Your task to perform on an android device: Open Yahoo.com Image 0: 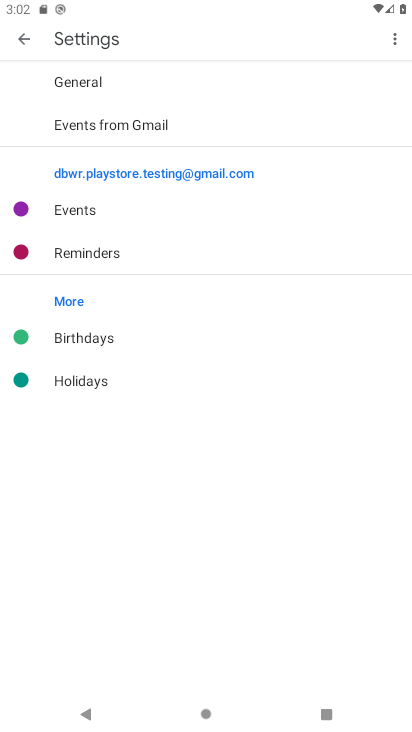
Step 0: press home button
Your task to perform on an android device: Open Yahoo.com Image 1: 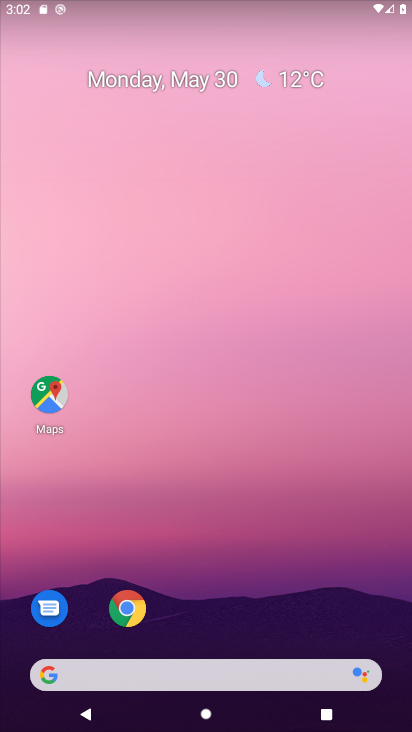
Step 1: click (135, 606)
Your task to perform on an android device: Open Yahoo.com Image 2: 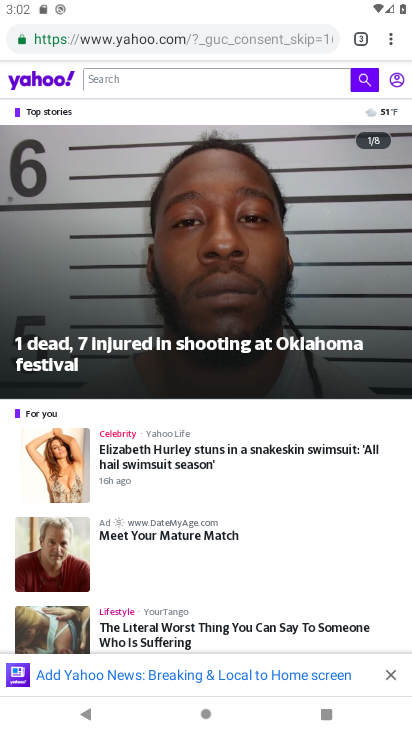
Step 2: task complete